Your task to perform on an android device: open wifi settings Image 0: 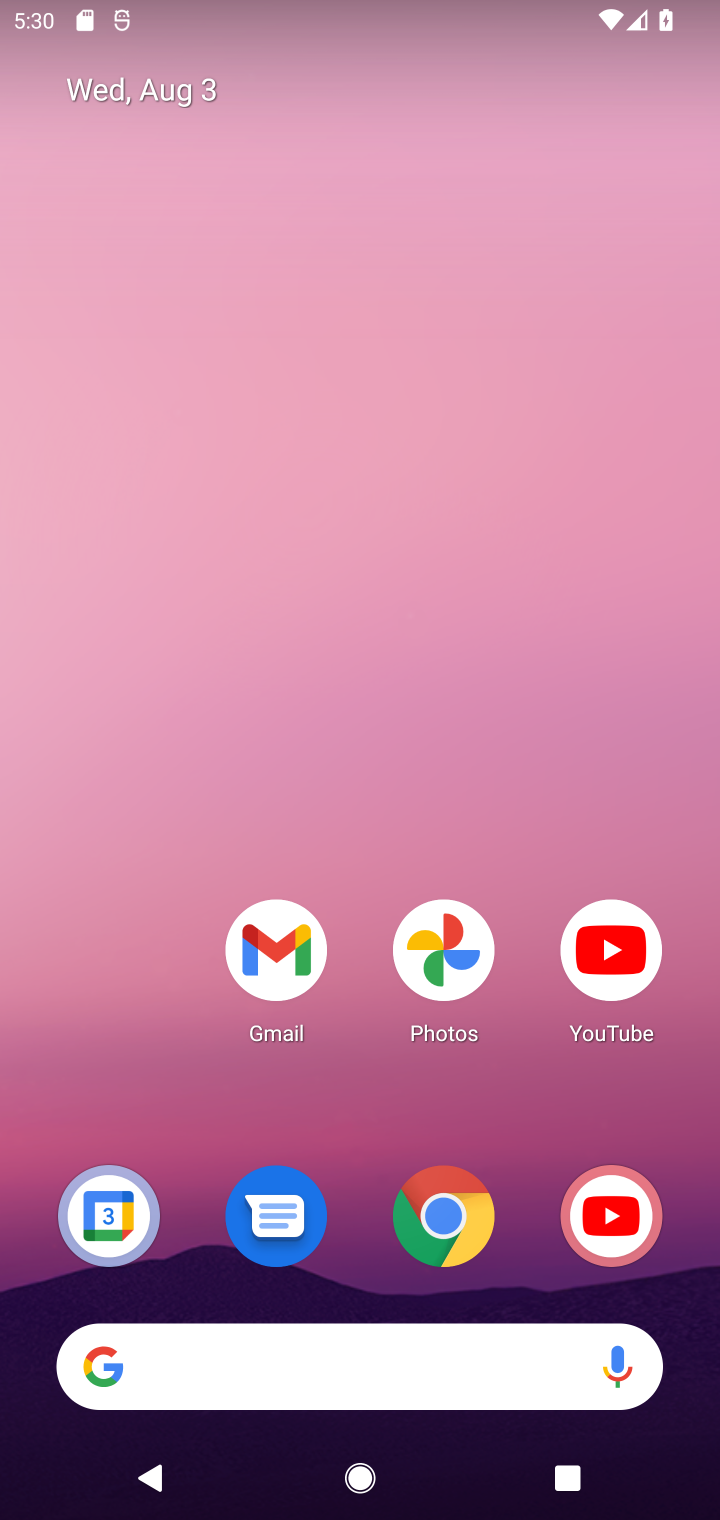
Step 0: drag from (403, 1359) to (390, 456)
Your task to perform on an android device: open wifi settings Image 1: 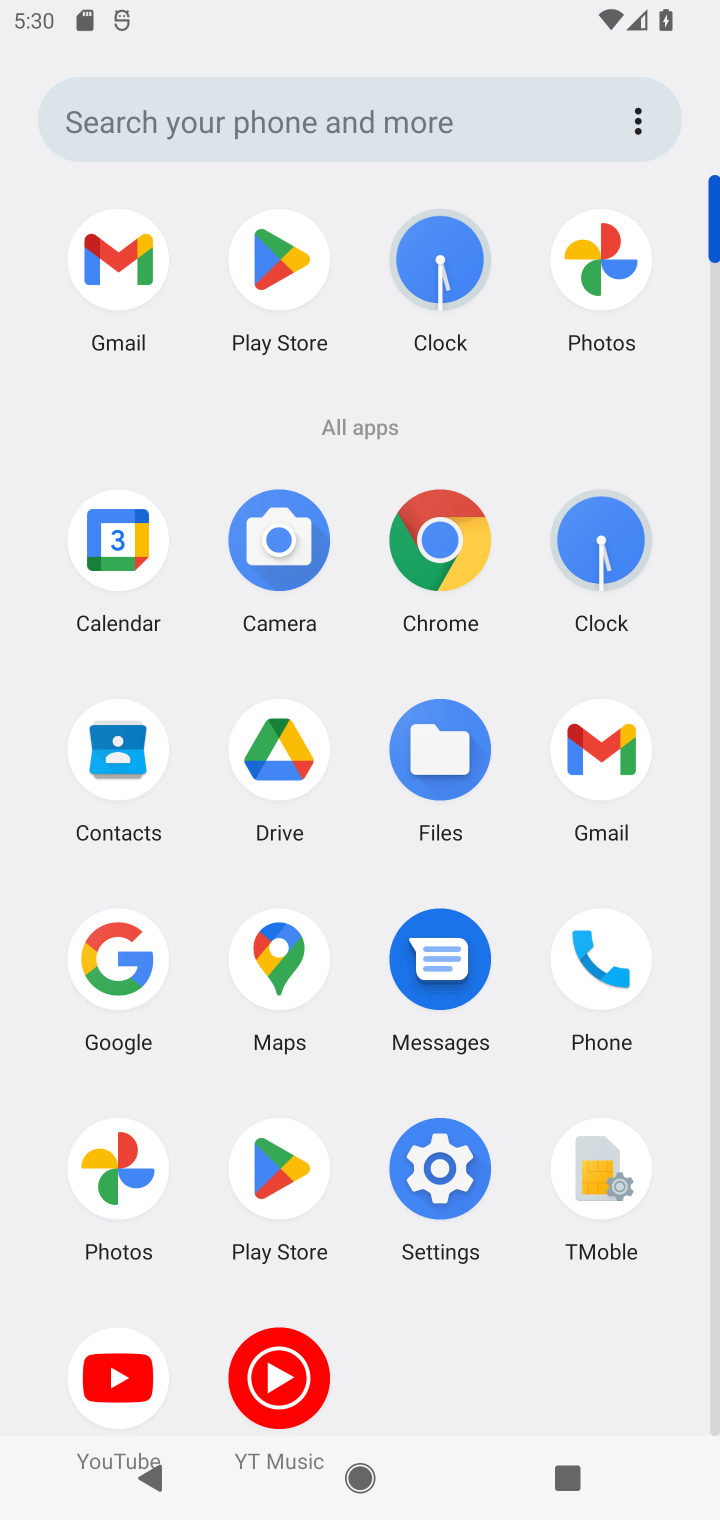
Step 1: click (433, 1187)
Your task to perform on an android device: open wifi settings Image 2: 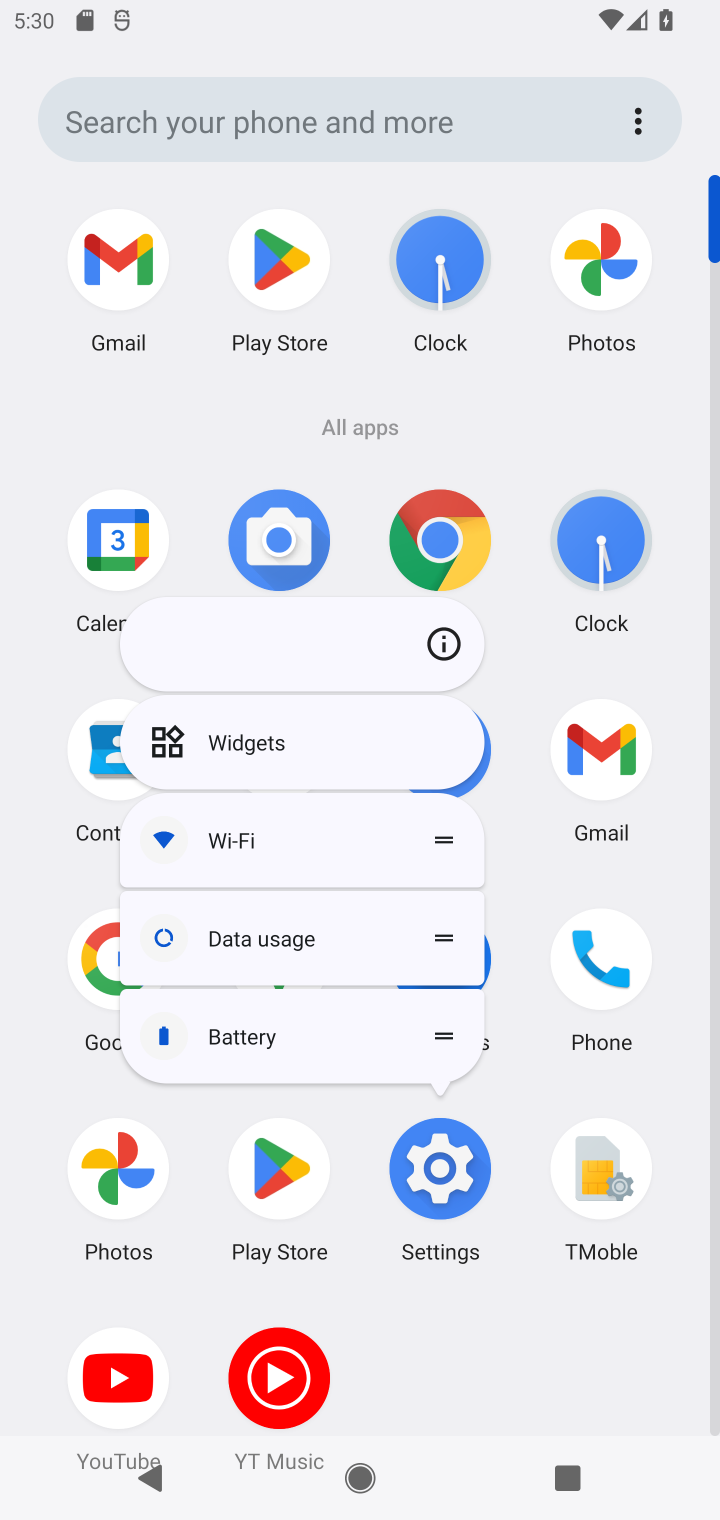
Step 2: click (471, 1161)
Your task to perform on an android device: open wifi settings Image 3: 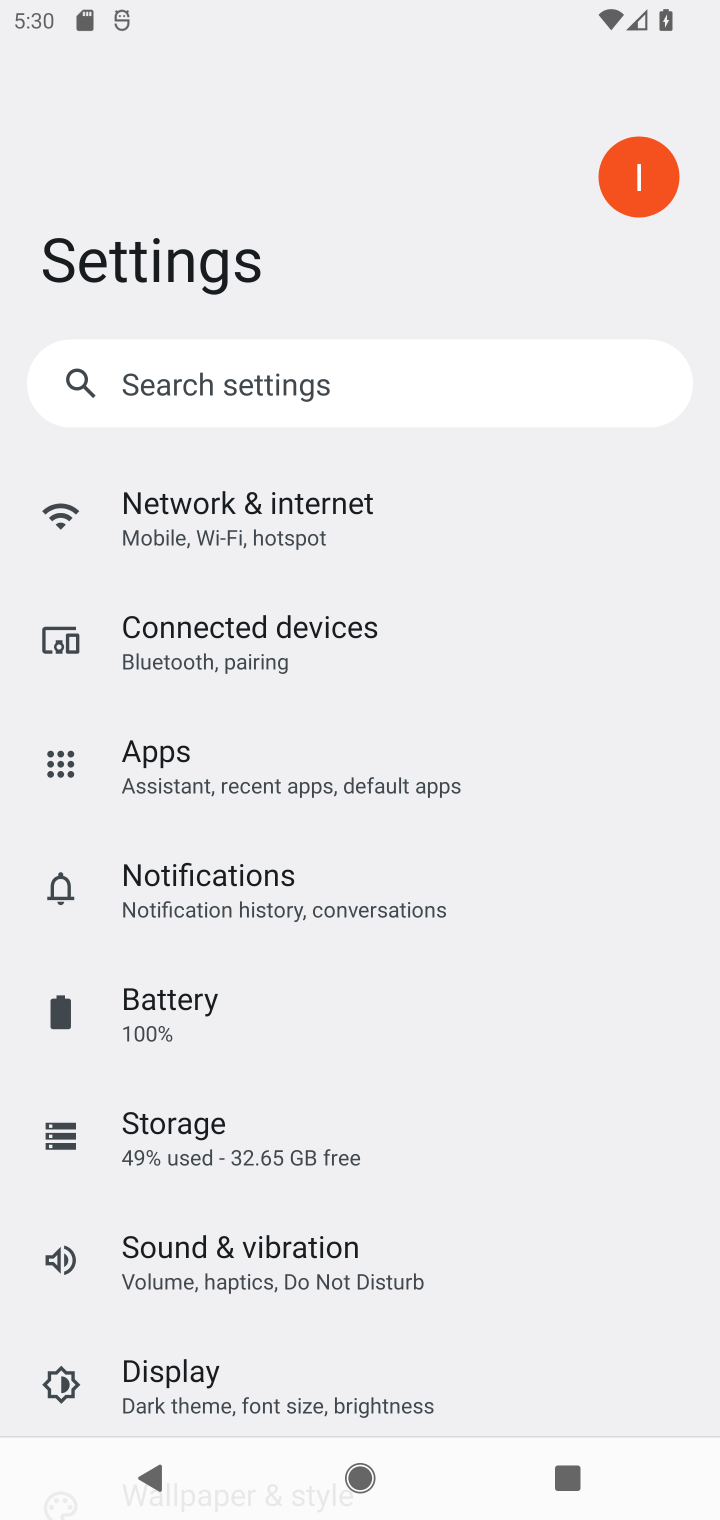
Step 3: click (404, 517)
Your task to perform on an android device: open wifi settings Image 4: 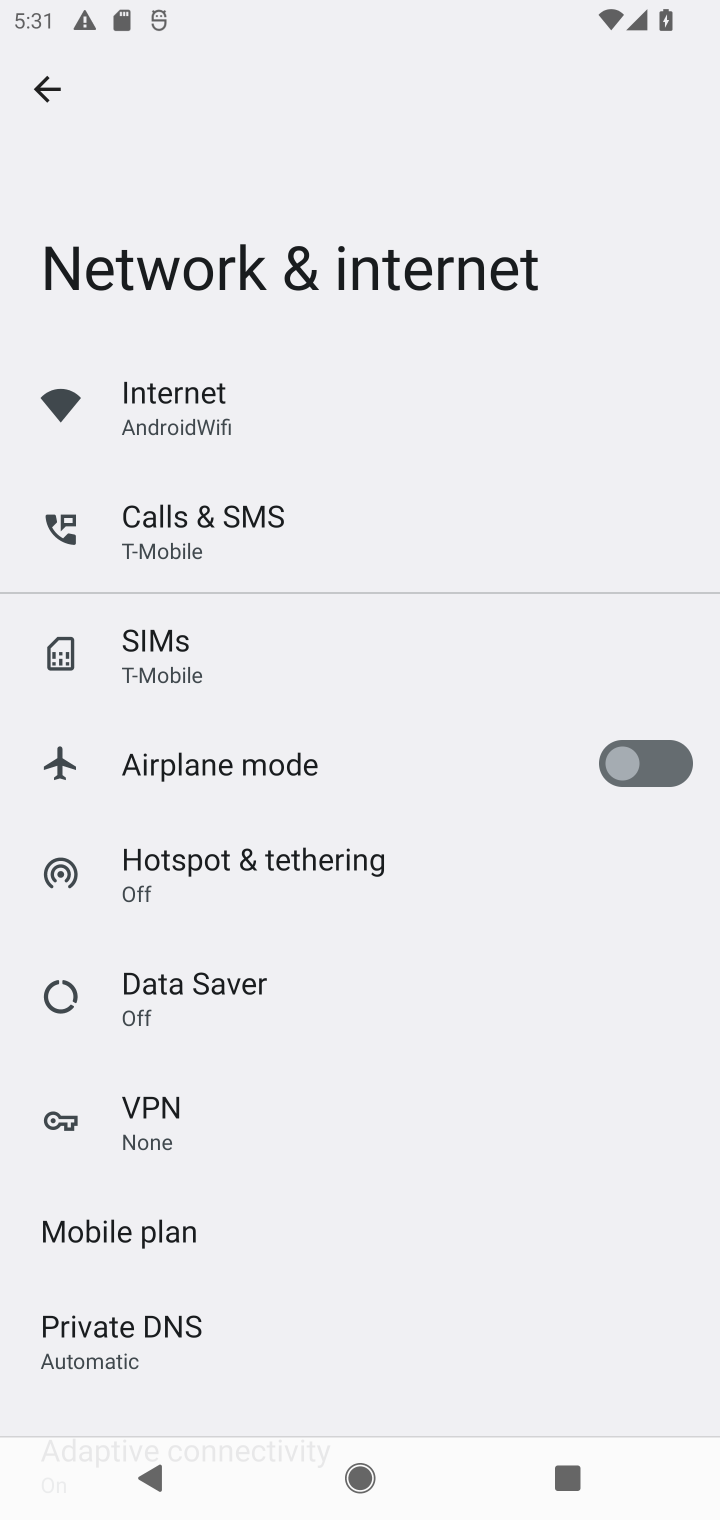
Step 4: click (192, 439)
Your task to perform on an android device: open wifi settings Image 5: 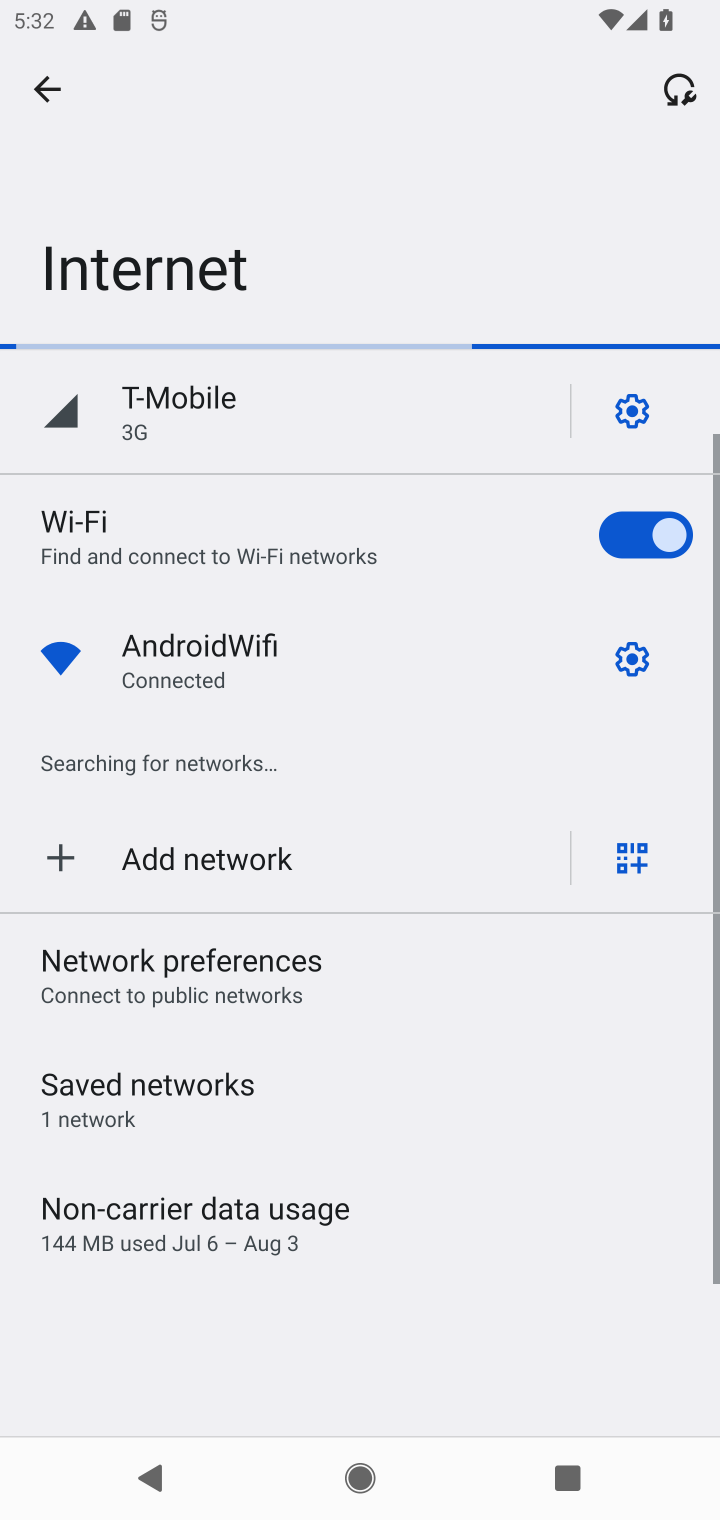
Step 5: task complete